Your task to perform on an android device: Open the play store Image 0: 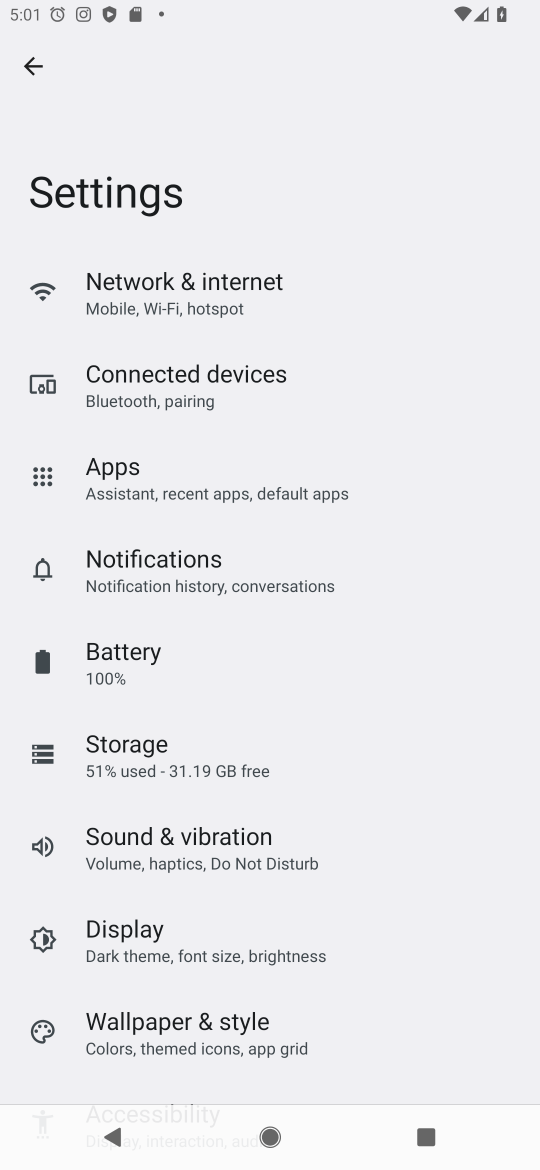
Step 0: press home button
Your task to perform on an android device: Open the play store Image 1: 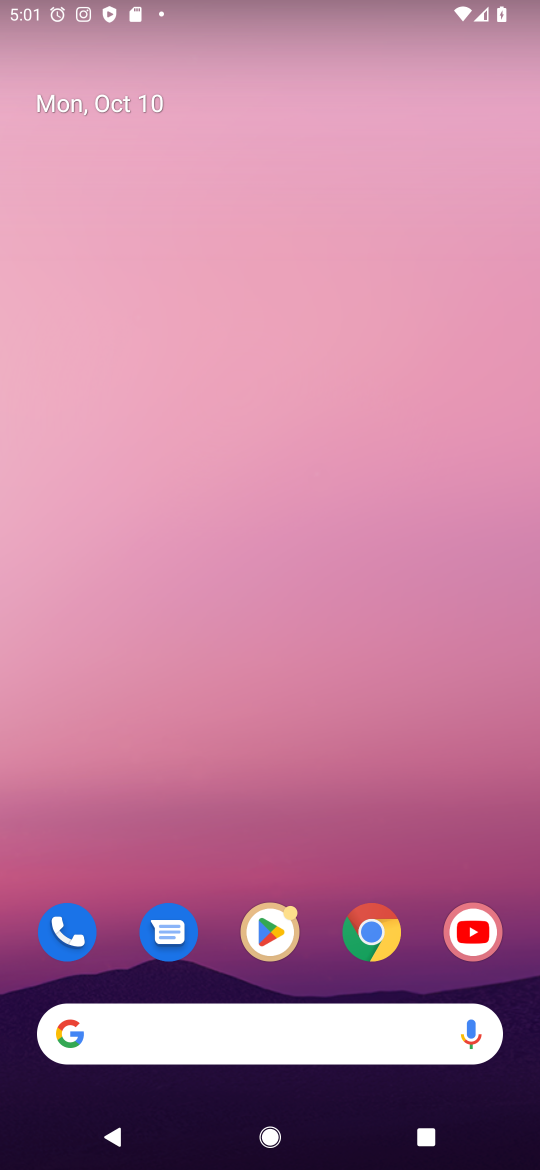
Step 1: drag from (404, 697) to (402, 81)
Your task to perform on an android device: Open the play store Image 2: 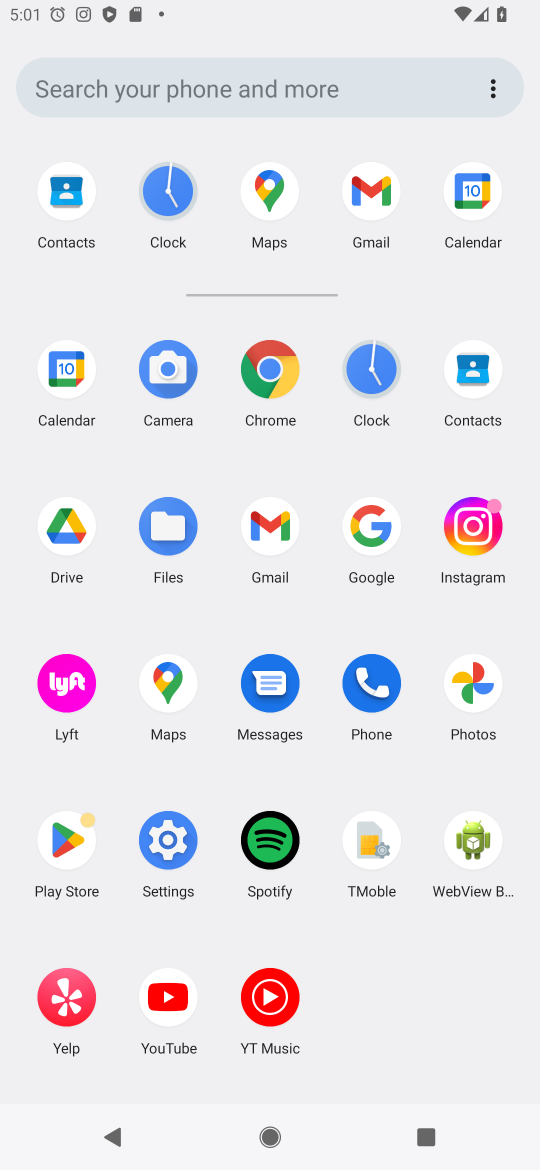
Step 2: click (57, 842)
Your task to perform on an android device: Open the play store Image 3: 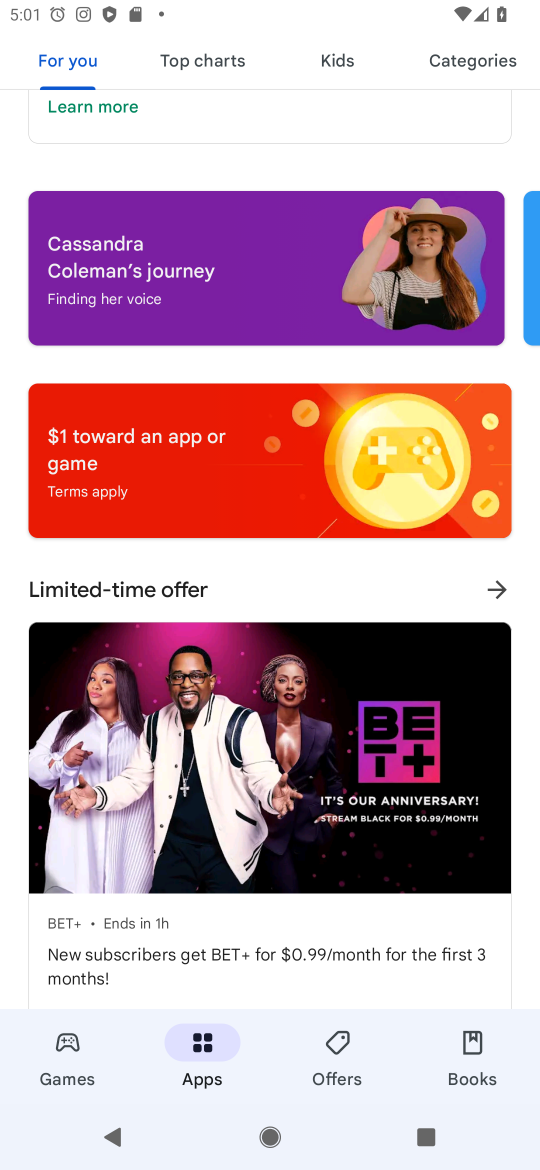
Step 3: task complete